Your task to perform on an android device: Do I have any events this weekend? Image 0: 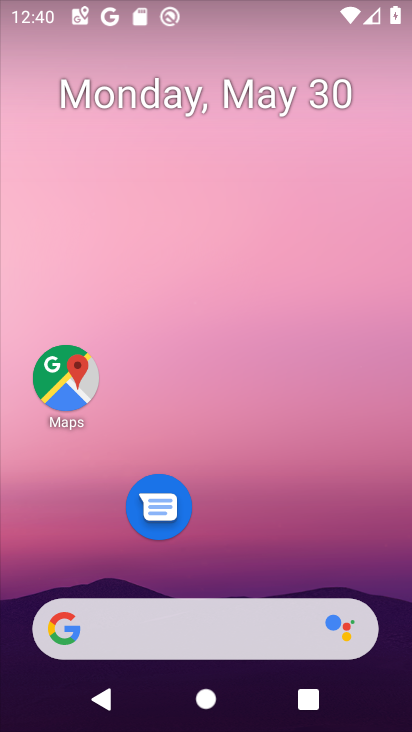
Step 0: drag from (238, 291) to (233, 40)
Your task to perform on an android device: Do I have any events this weekend? Image 1: 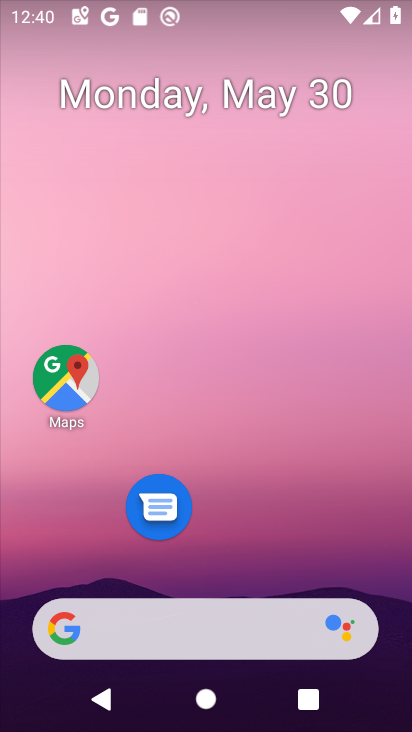
Step 1: drag from (257, 526) to (257, 65)
Your task to perform on an android device: Do I have any events this weekend? Image 2: 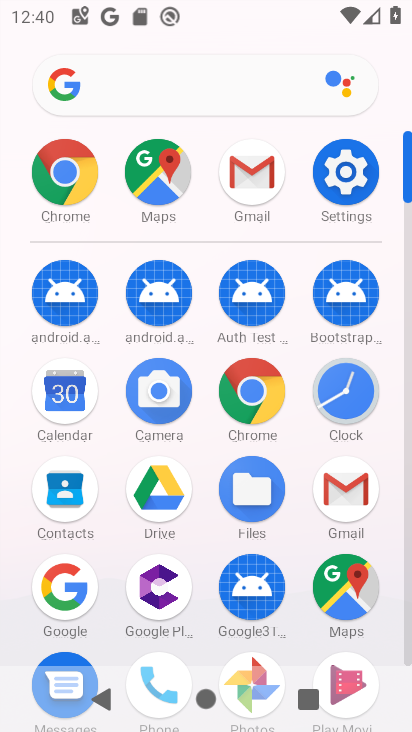
Step 2: drag from (181, 280) to (189, 22)
Your task to perform on an android device: Do I have any events this weekend? Image 3: 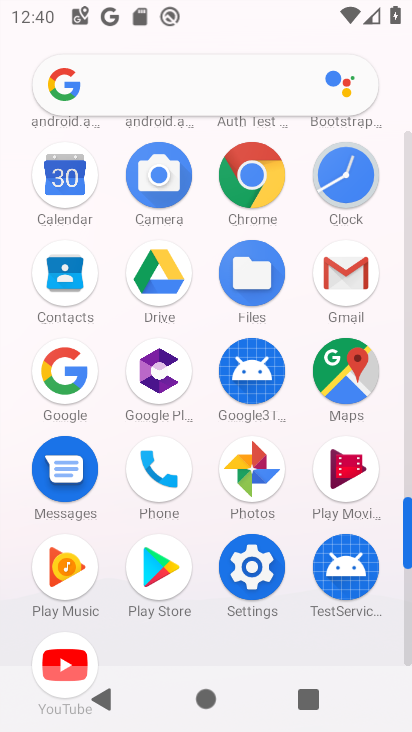
Step 3: click (67, 163)
Your task to perform on an android device: Do I have any events this weekend? Image 4: 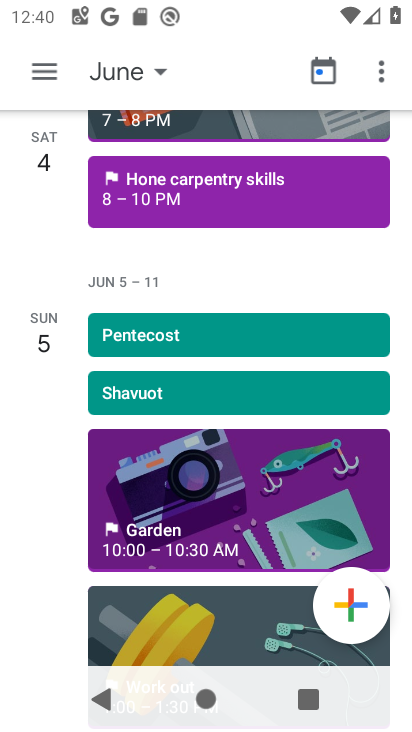
Step 4: click (157, 68)
Your task to perform on an android device: Do I have any events this weekend? Image 5: 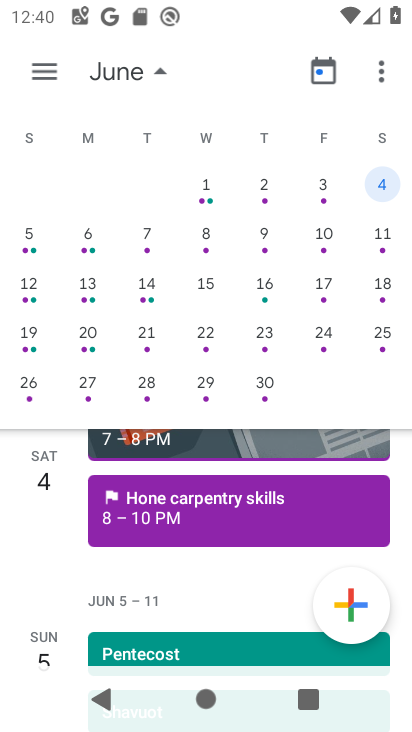
Step 5: click (329, 186)
Your task to perform on an android device: Do I have any events this weekend? Image 6: 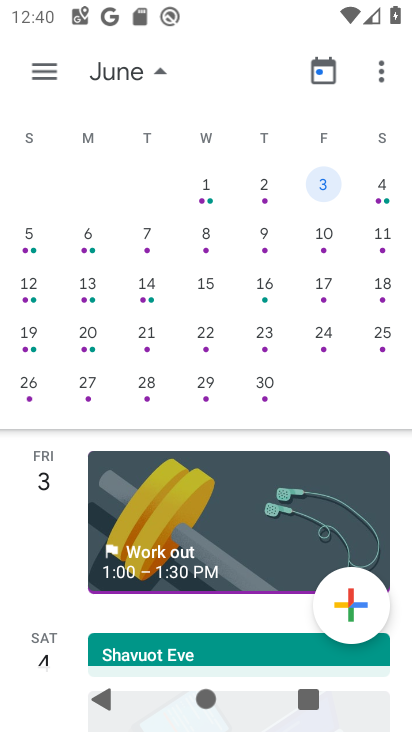
Step 6: task complete